Your task to perform on an android device: When is my next meeting? Image 0: 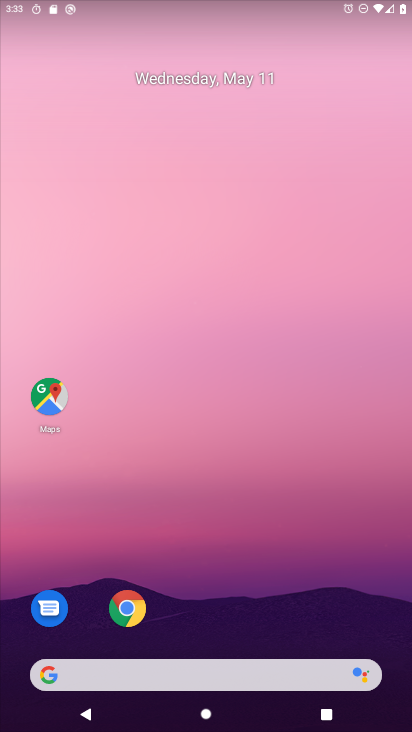
Step 0: drag from (201, 644) to (187, 109)
Your task to perform on an android device: When is my next meeting? Image 1: 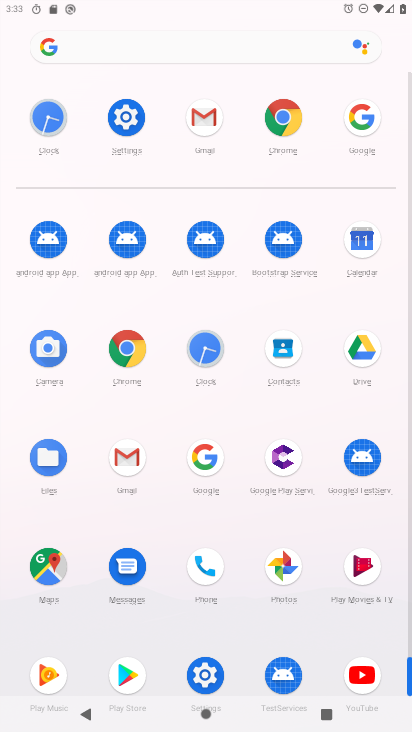
Step 1: click (350, 262)
Your task to perform on an android device: When is my next meeting? Image 2: 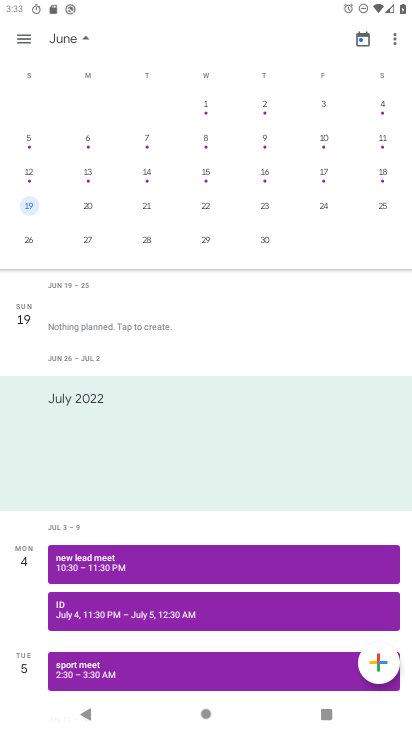
Step 2: task complete